Your task to perform on an android device: Go to location settings Image 0: 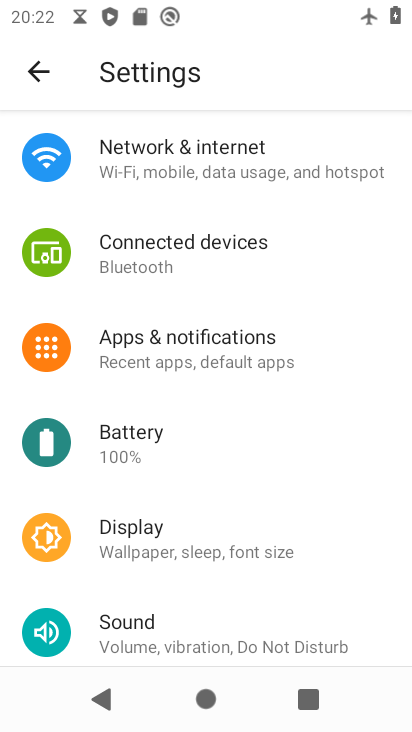
Step 0: drag from (222, 590) to (334, 79)
Your task to perform on an android device: Go to location settings Image 1: 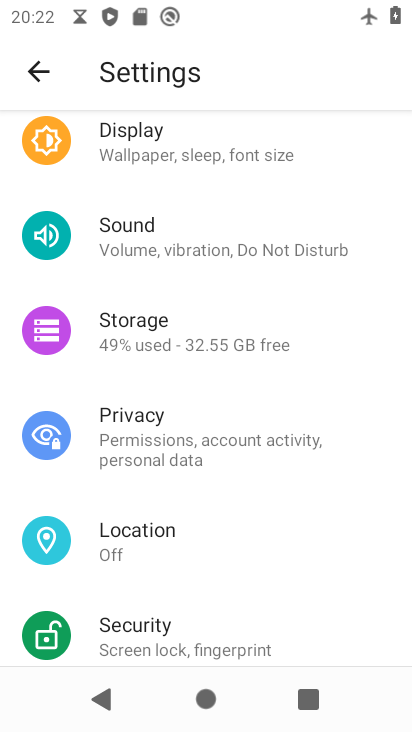
Step 1: click (173, 535)
Your task to perform on an android device: Go to location settings Image 2: 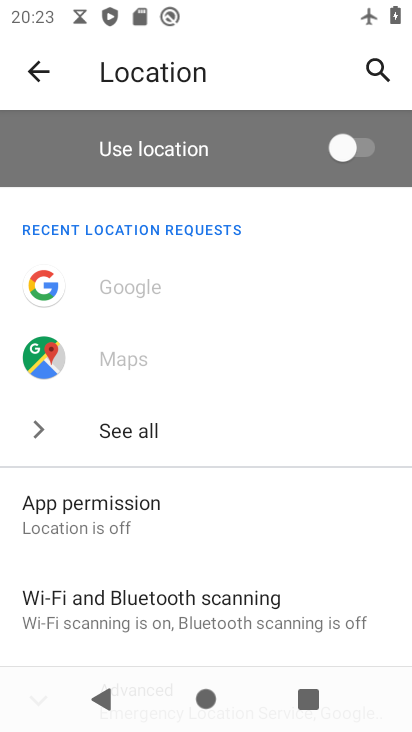
Step 2: task complete